Your task to perform on an android device: Go to Google maps Image 0: 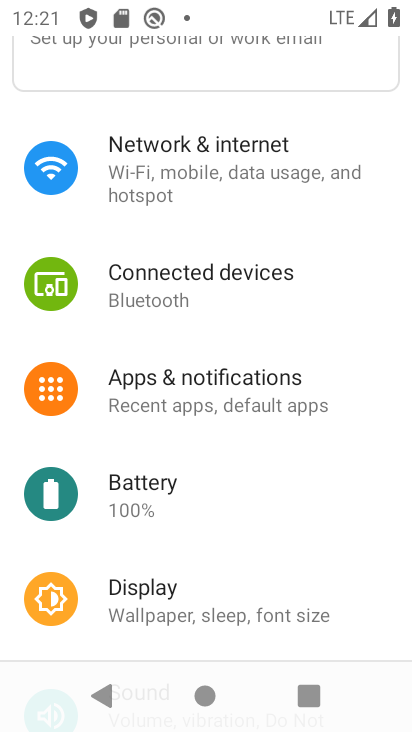
Step 0: press back button
Your task to perform on an android device: Go to Google maps Image 1: 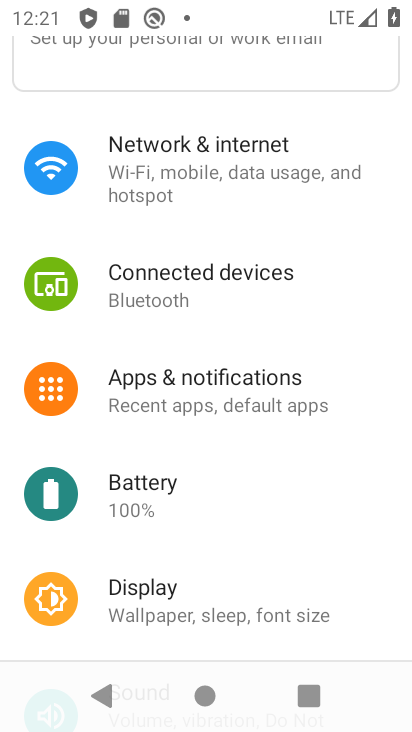
Step 1: press back button
Your task to perform on an android device: Go to Google maps Image 2: 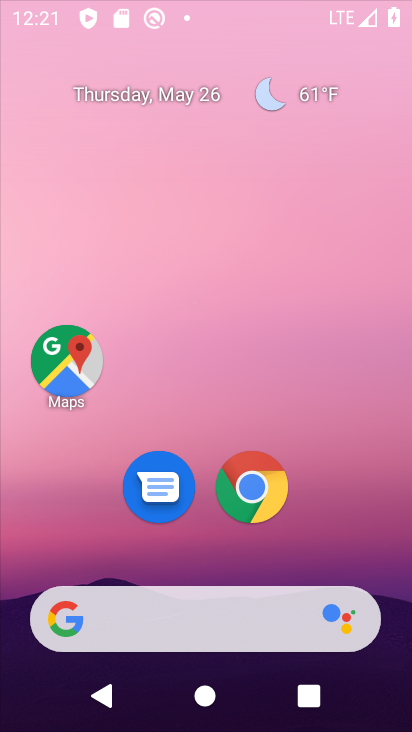
Step 2: press back button
Your task to perform on an android device: Go to Google maps Image 3: 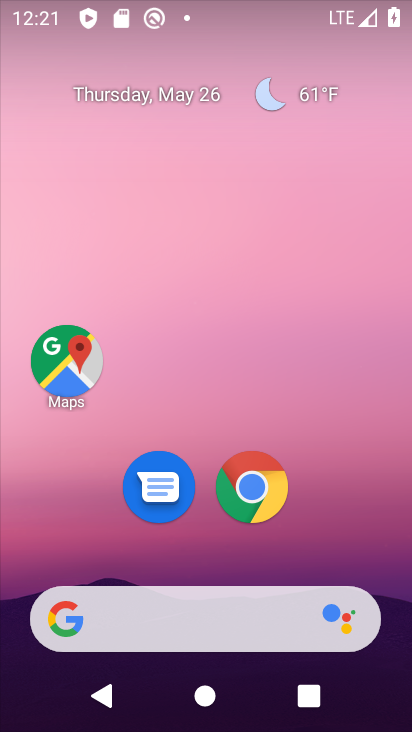
Step 3: click (65, 353)
Your task to perform on an android device: Go to Google maps Image 4: 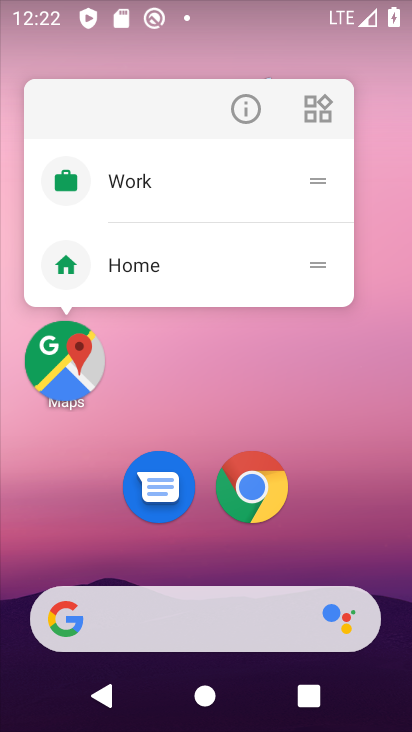
Step 4: click (65, 352)
Your task to perform on an android device: Go to Google maps Image 5: 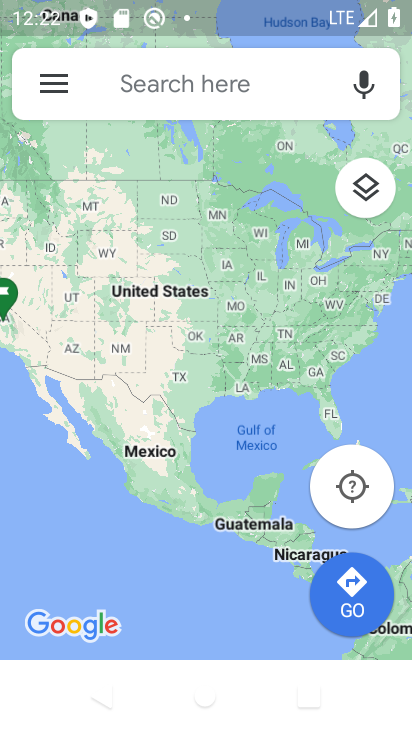
Step 5: task complete